Your task to perform on an android device: turn on priority inbox in the gmail app Image 0: 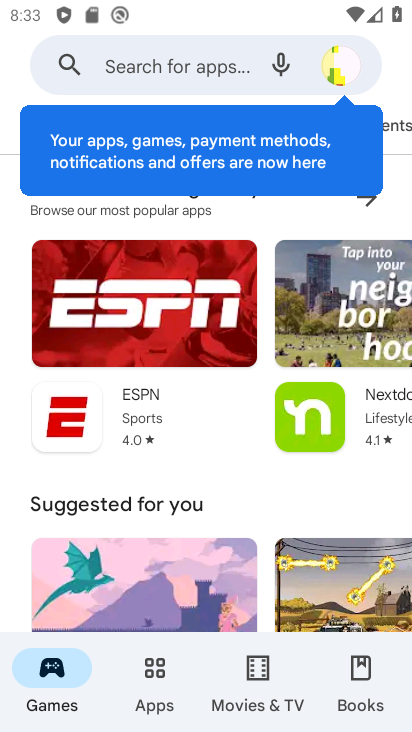
Step 0: press home button
Your task to perform on an android device: turn on priority inbox in the gmail app Image 1: 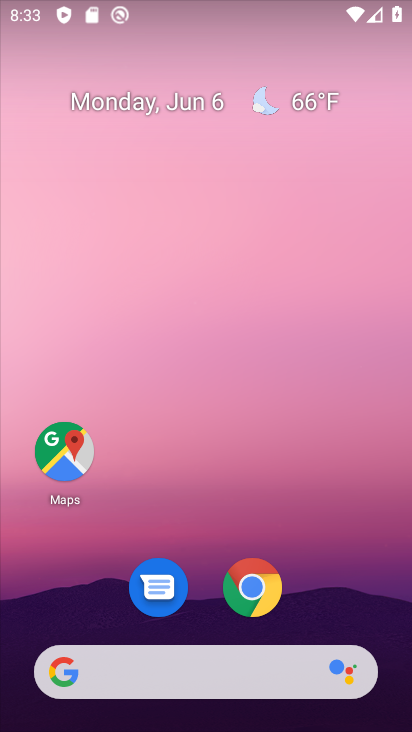
Step 1: drag from (194, 660) to (212, 165)
Your task to perform on an android device: turn on priority inbox in the gmail app Image 2: 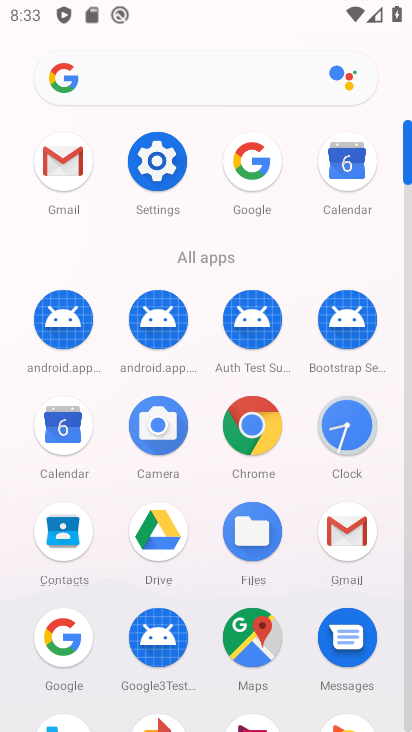
Step 2: click (72, 173)
Your task to perform on an android device: turn on priority inbox in the gmail app Image 3: 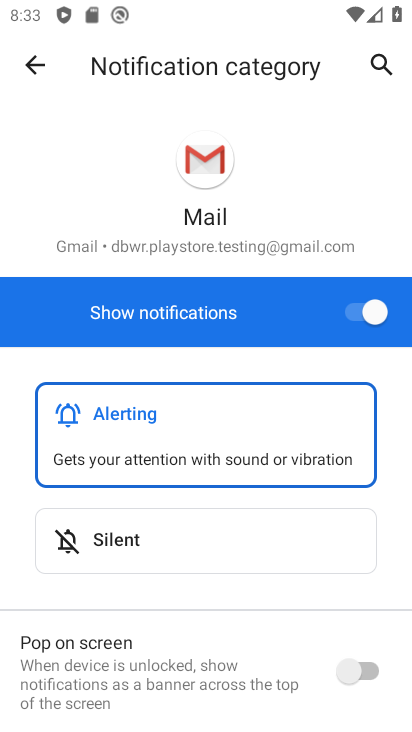
Step 3: click (29, 65)
Your task to perform on an android device: turn on priority inbox in the gmail app Image 4: 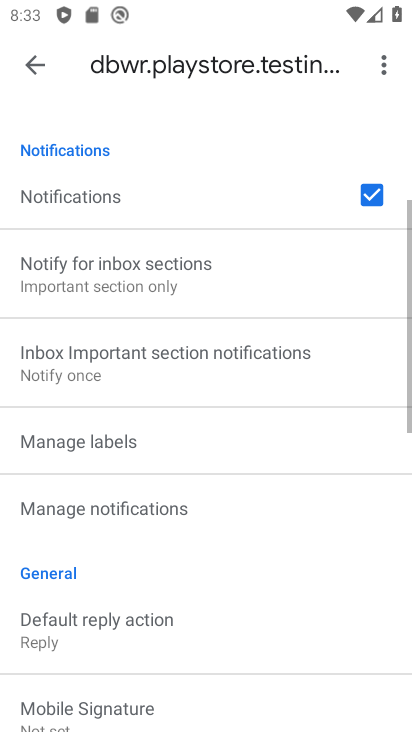
Step 4: drag from (193, 326) to (143, 669)
Your task to perform on an android device: turn on priority inbox in the gmail app Image 5: 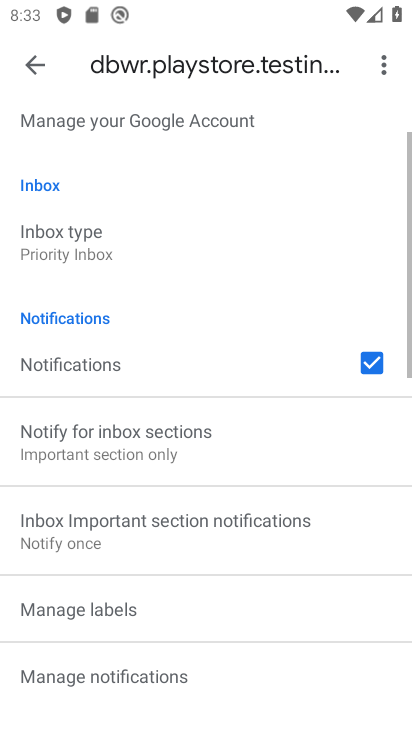
Step 5: click (83, 302)
Your task to perform on an android device: turn on priority inbox in the gmail app Image 6: 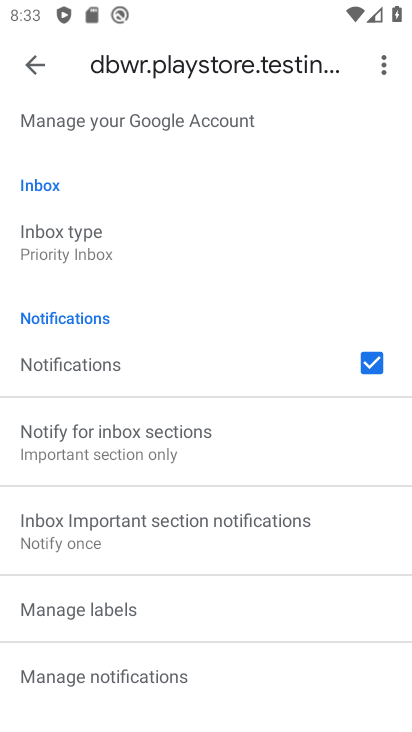
Step 6: click (74, 241)
Your task to perform on an android device: turn on priority inbox in the gmail app Image 7: 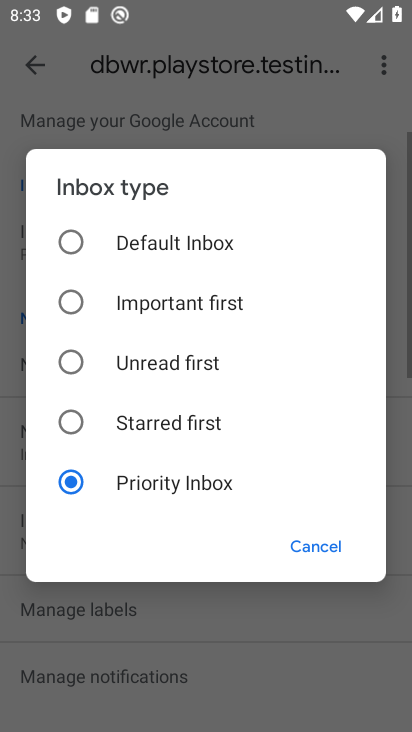
Step 7: click (153, 482)
Your task to perform on an android device: turn on priority inbox in the gmail app Image 8: 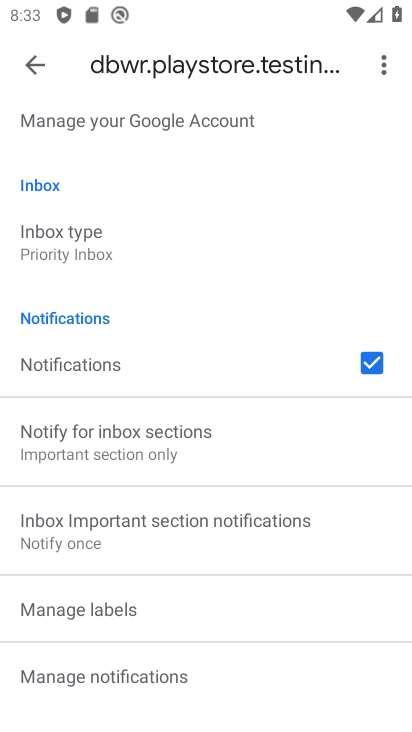
Step 8: task complete